Your task to perform on an android device: Play the new Justin Bieber video on YouTube Image 0: 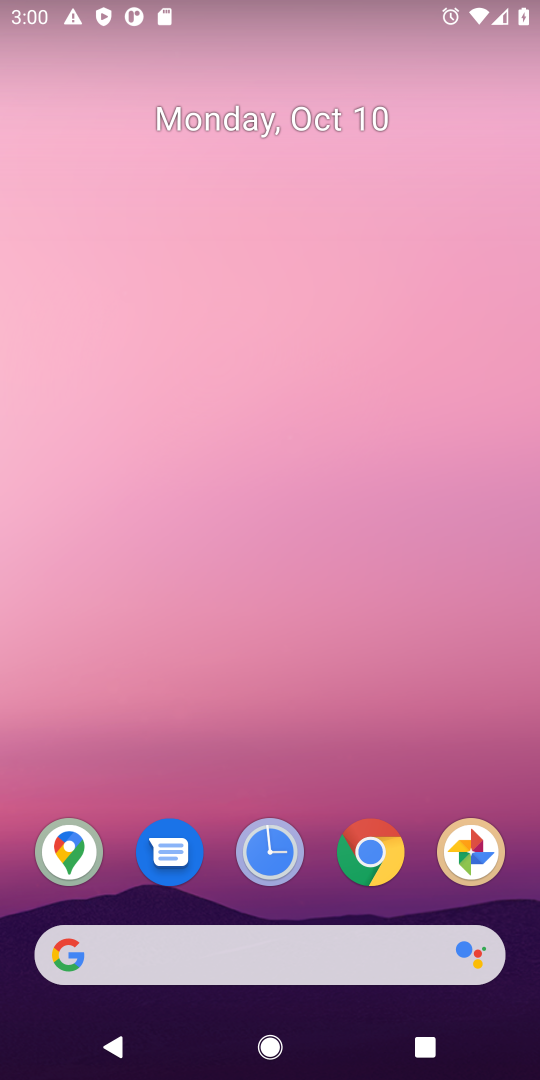
Step 0: drag from (289, 779) to (343, 242)
Your task to perform on an android device: Play the new Justin Bieber video on YouTube Image 1: 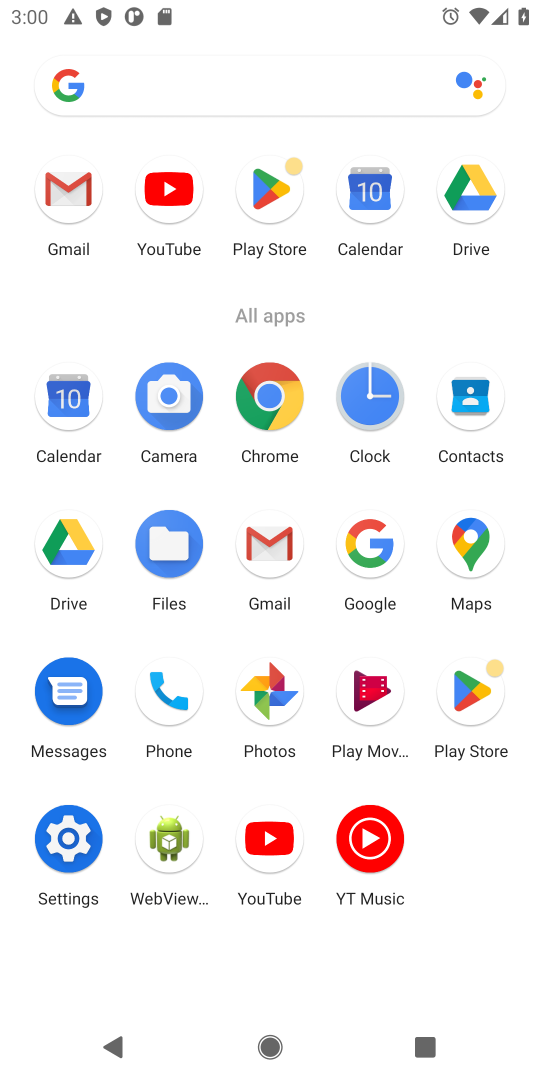
Step 1: click (187, 190)
Your task to perform on an android device: Play the new Justin Bieber video on YouTube Image 2: 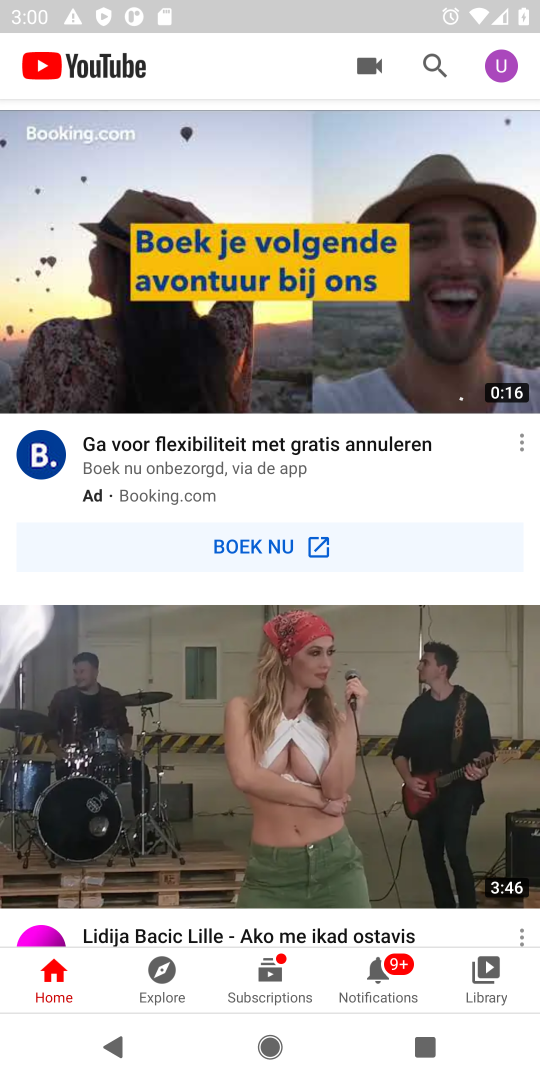
Step 2: click (429, 69)
Your task to perform on an android device: Play the new Justin Bieber video on YouTube Image 3: 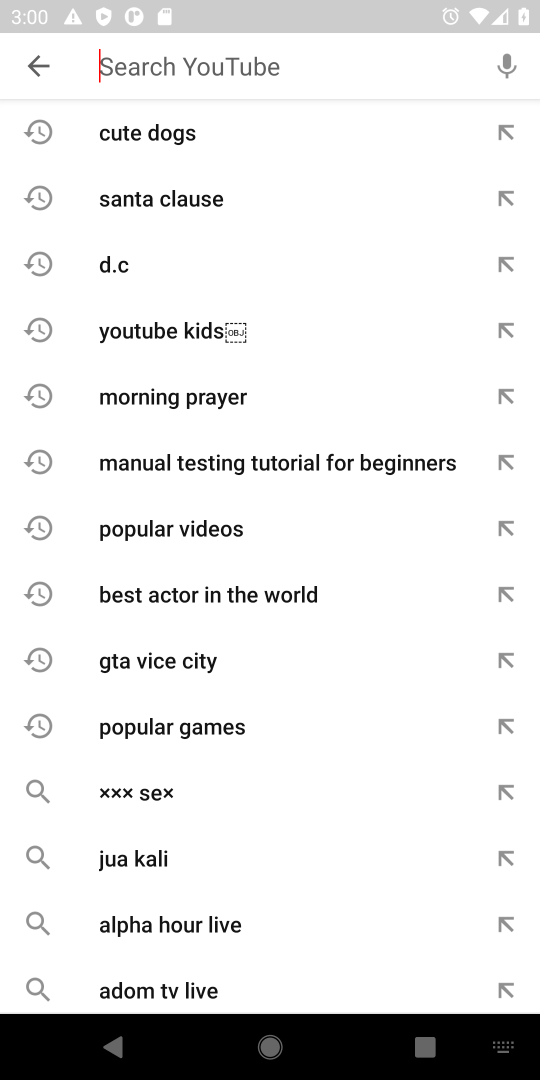
Step 3: click (524, 1067)
Your task to perform on an android device: Play the new Justin Bieber video on YouTube Image 4: 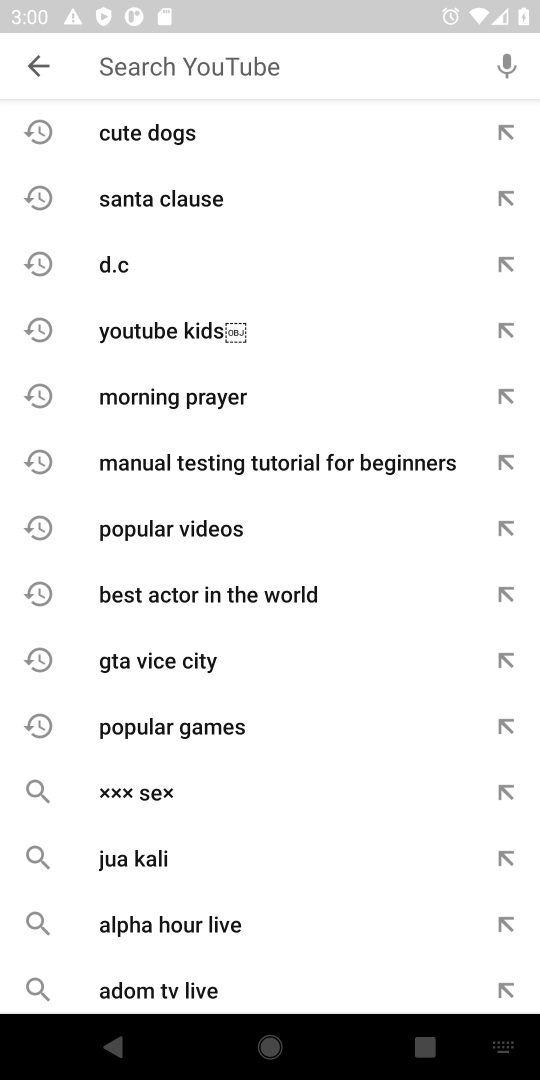
Step 4: type "new Justin Bieber video "
Your task to perform on an android device: Play the new Justin Bieber video on YouTube Image 5: 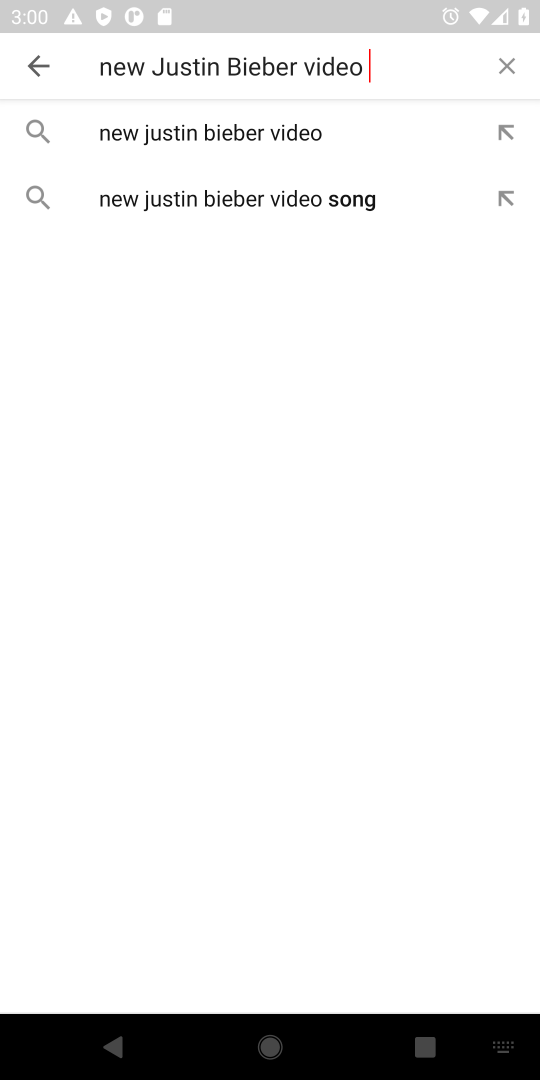
Step 5: type ""
Your task to perform on an android device: Play the new Justin Bieber video on YouTube Image 6: 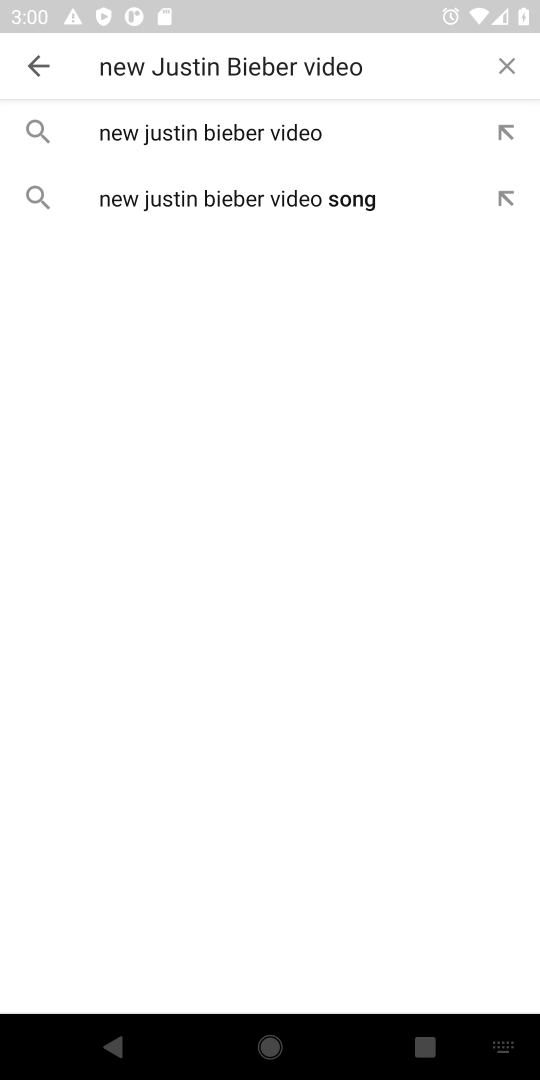
Step 6: click (72, 472)
Your task to perform on an android device: Play the new Justin Bieber video on YouTube Image 7: 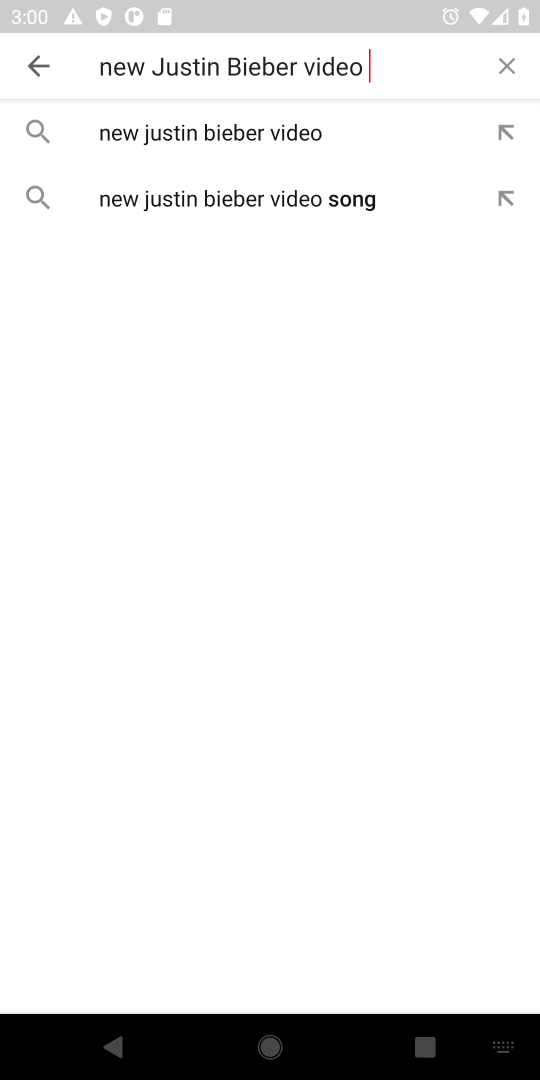
Step 7: click (279, 139)
Your task to perform on an android device: Play the new Justin Bieber video on YouTube Image 8: 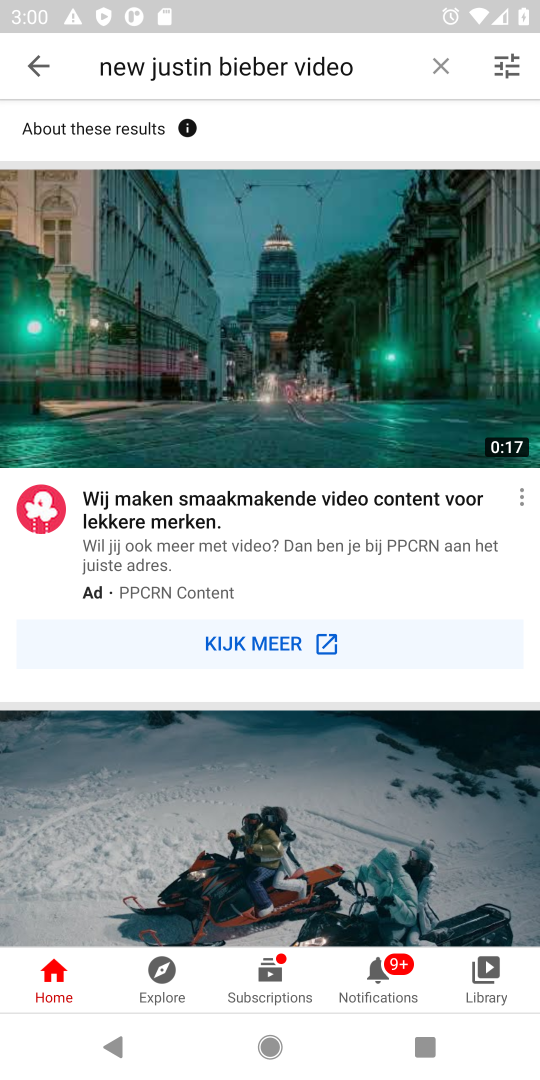
Step 8: drag from (246, 847) to (219, 294)
Your task to perform on an android device: Play the new Justin Bieber video on YouTube Image 9: 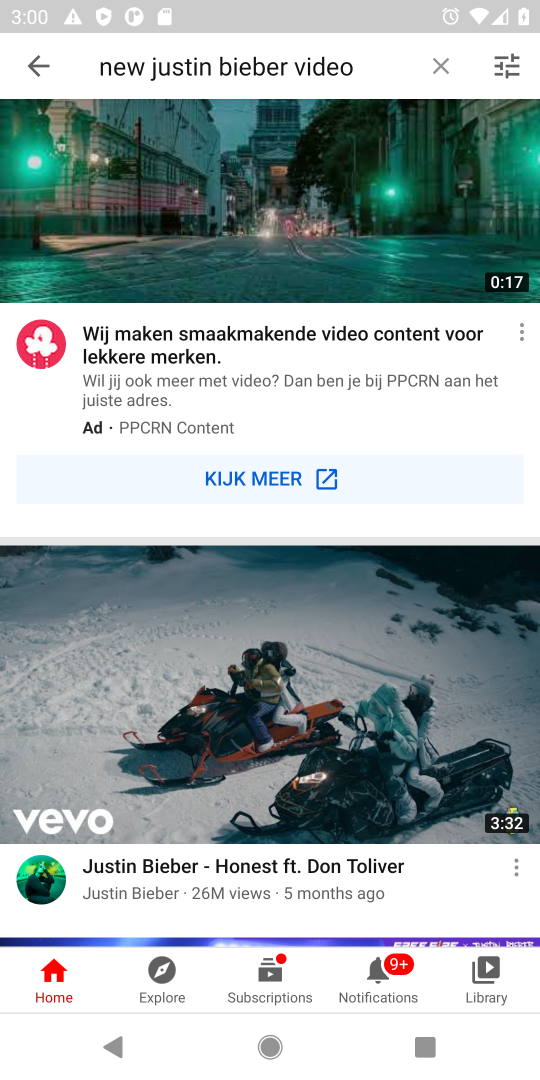
Step 9: click (177, 662)
Your task to perform on an android device: Play the new Justin Bieber video on YouTube Image 10: 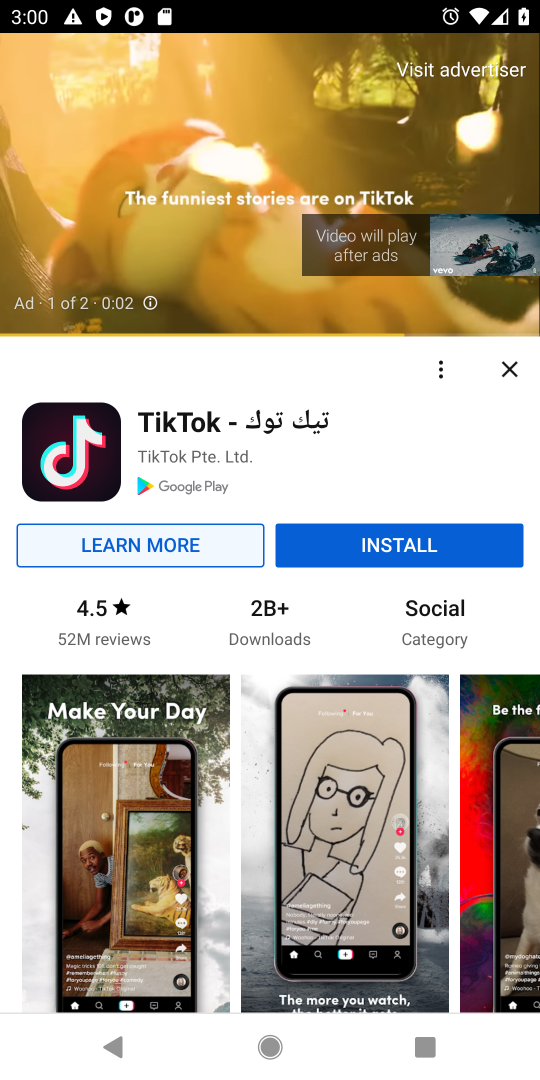
Step 10: click (512, 364)
Your task to perform on an android device: Play the new Justin Bieber video on YouTube Image 11: 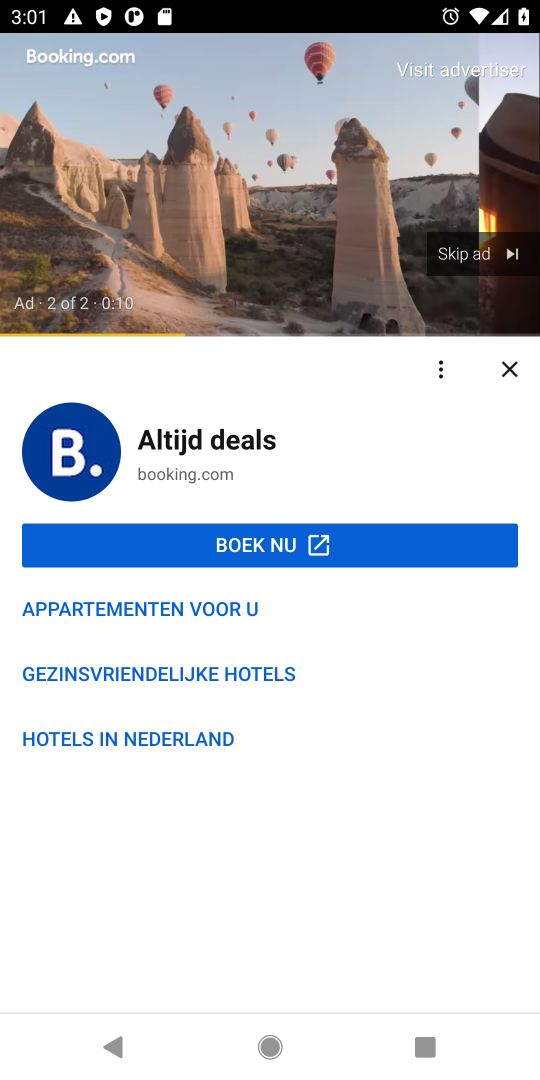
Step 11: click (496, 358)
Your task to perform on an android device: Play the new Justin Bieber video on YouTube Image 12: 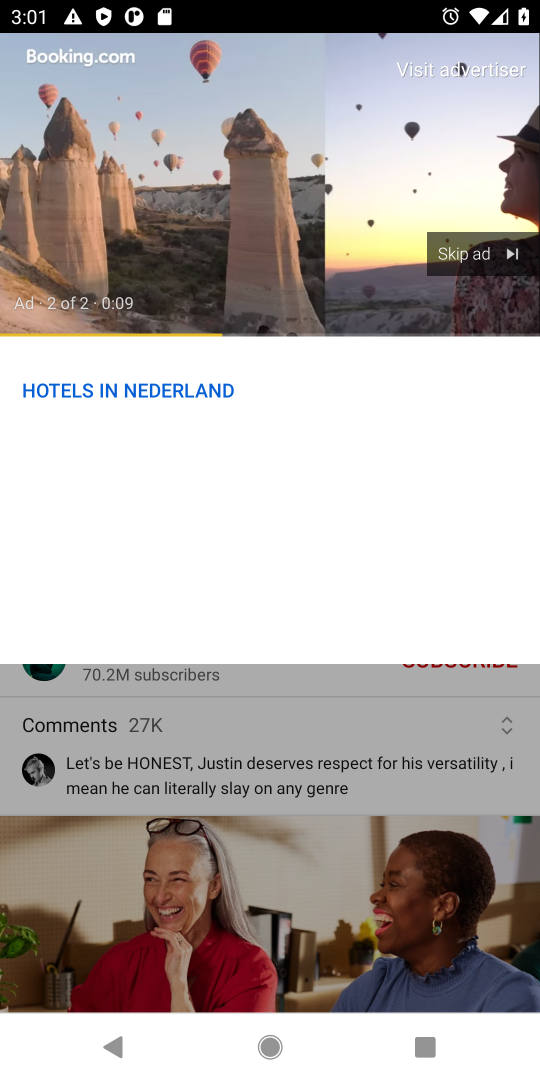
Step 12: click (492, 243)
Your task to perform on an android device: Play the new Justin Bieber video on YouTube Image 13: 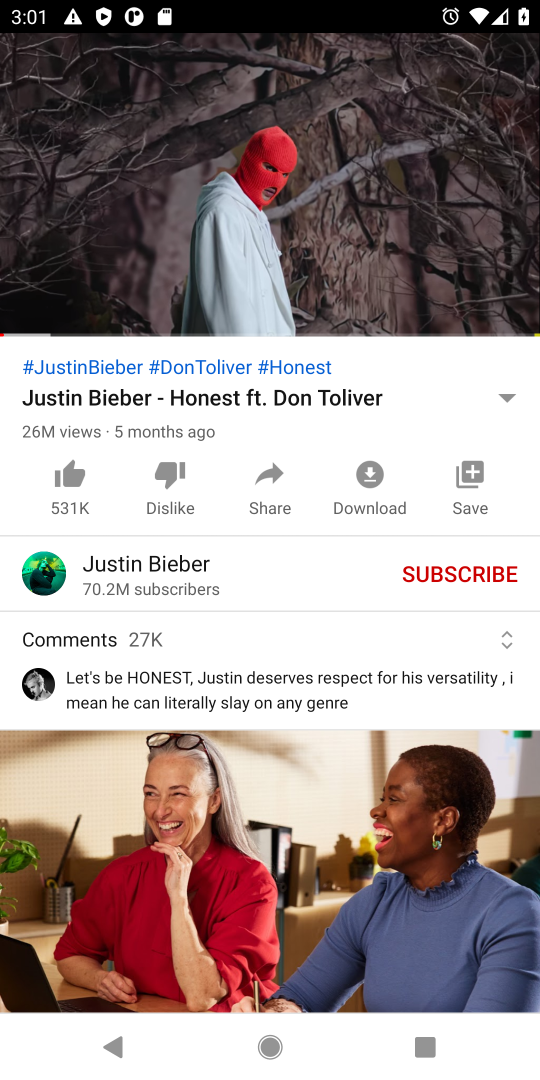
Step 13: click (294, 179)
Your task to perform on an android device: Play the new Justin Bieber video on YouTube Image 14: 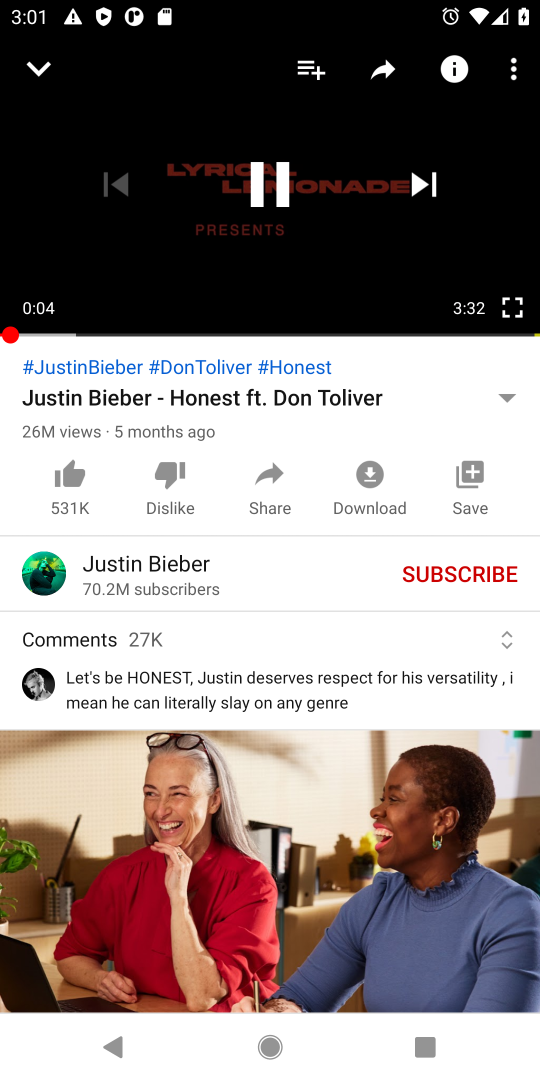
Step 14: click (272, 183)
Your task to perform on an android device: Play the new Justin Bieber video on YouTube Image 15: 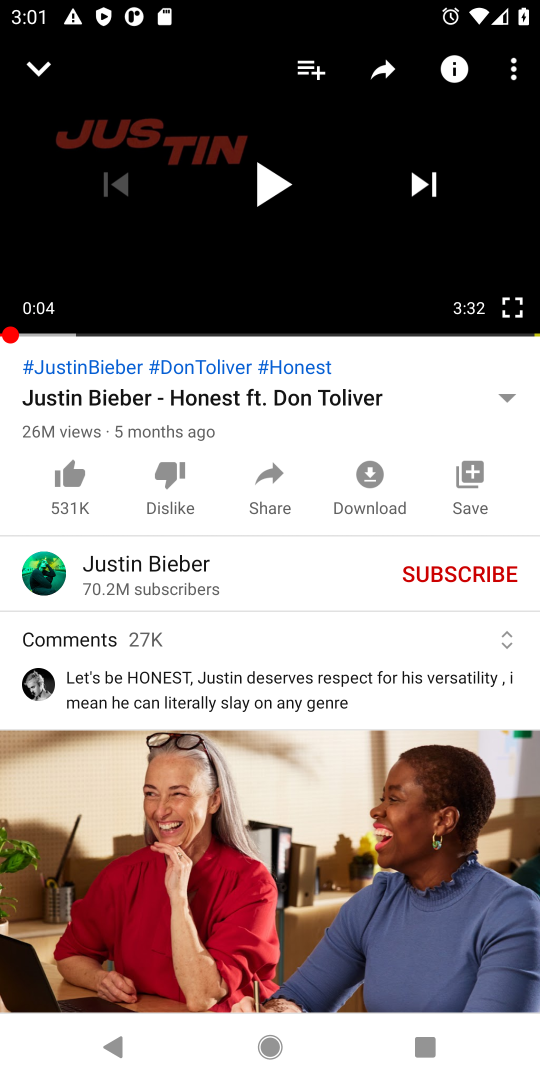
Step 15: task complete